Your task to perform on an android device: Check the weather Image 0: 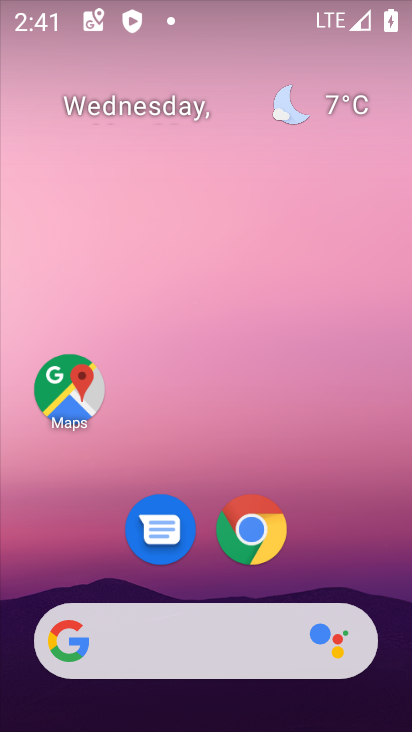
Step 0: drag from (335, 493) to (289, 126)
Your task to perform on an android device: Check the weather Image 1: 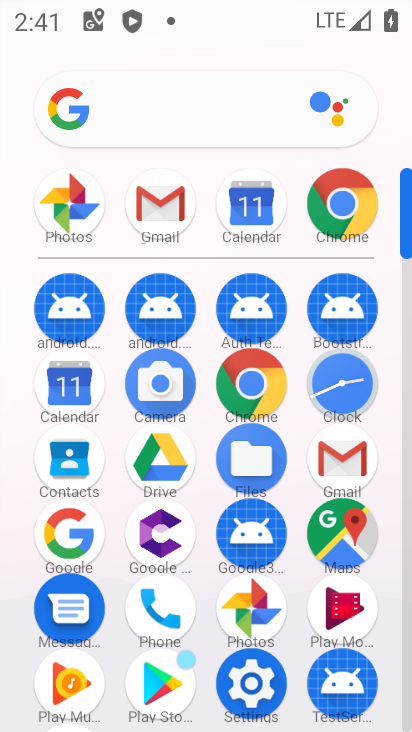
Step 1: press home button
Your task to perform on an android device: Check the weather Image 2: 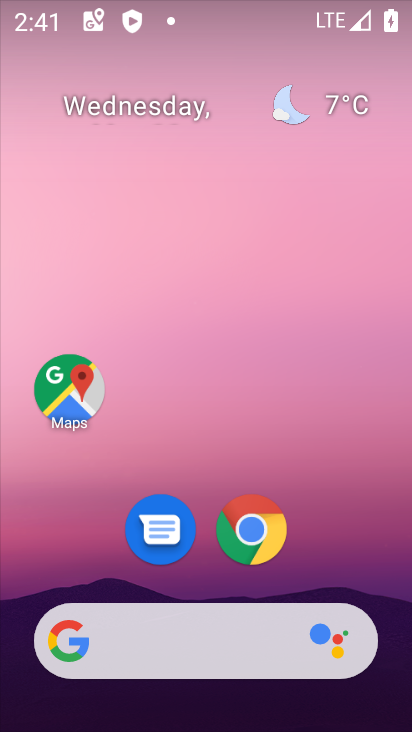
Step 2: click (337, 103)
Your task to perform on an android device: Check the weather Image 3: 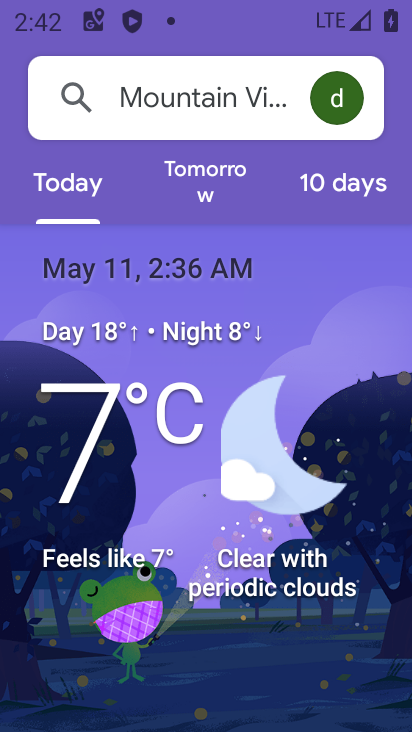
Step 3: task complete